Your task to perform on an android device: change the clock display to digital Image 0: 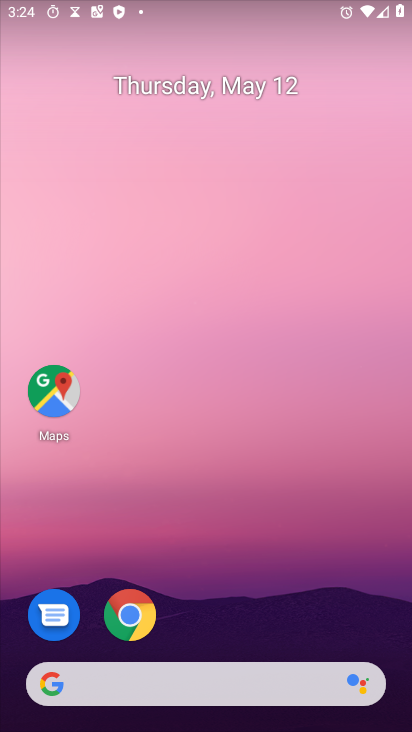
Step 0: press home button
Your task to perform on an android device: change the clock display to digital Image 1: 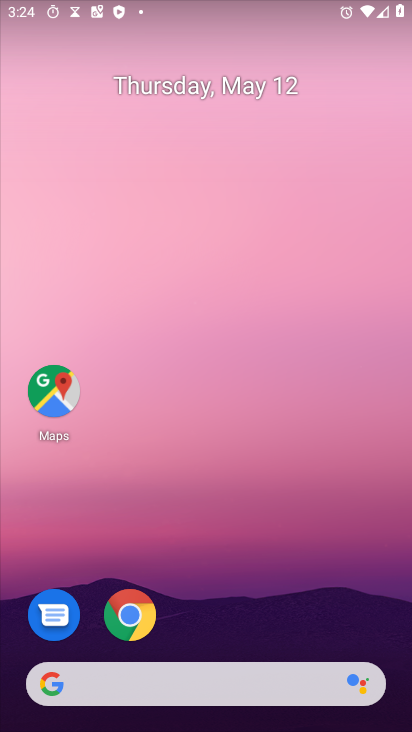
Step 1: drag from (58, 499) to (296, 45)
Your task to perform on an android device: change the clock display to digital Image 2: 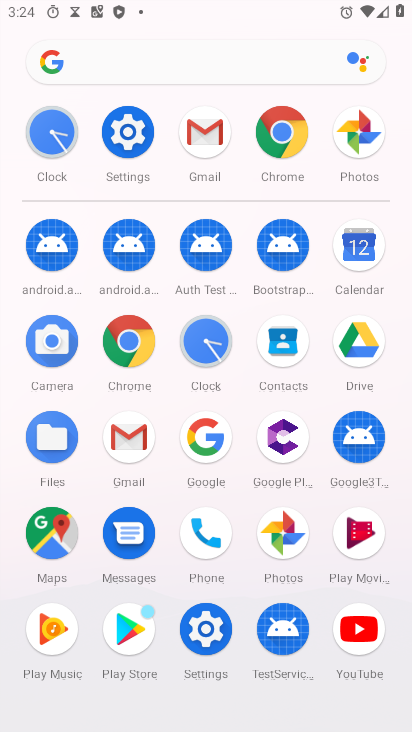
Step 2: click (216, 344)
Your task to perform on an android device: change the clock display to digital Image 3: 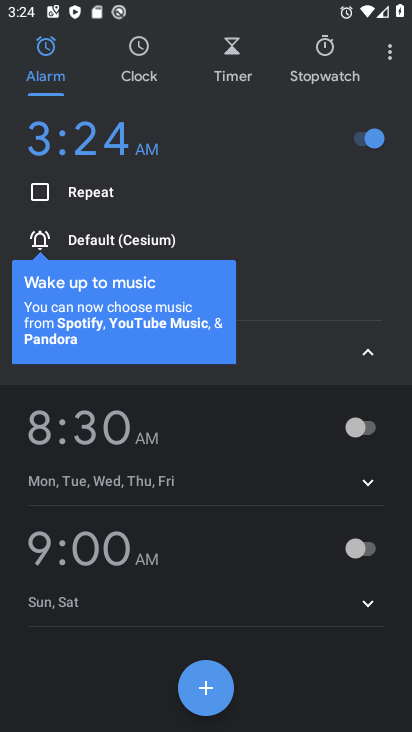
Step 3: click (386, 54)
Your task to perform on an android device: change the clock display to digital Image 4: 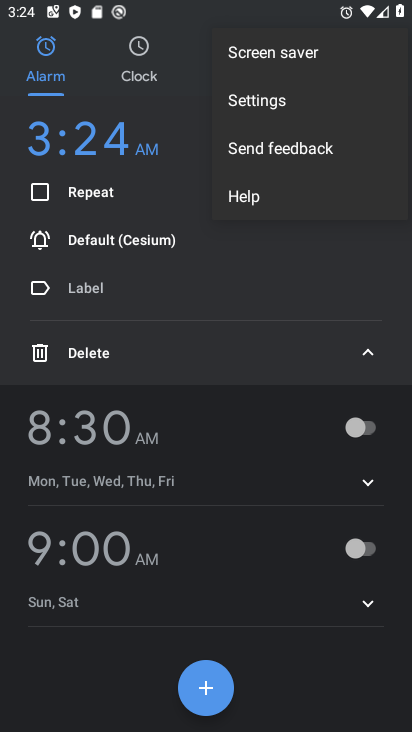
Step 4: click (265, 100)
Your task to perform on an android device: change the clock display to digital Image 5: 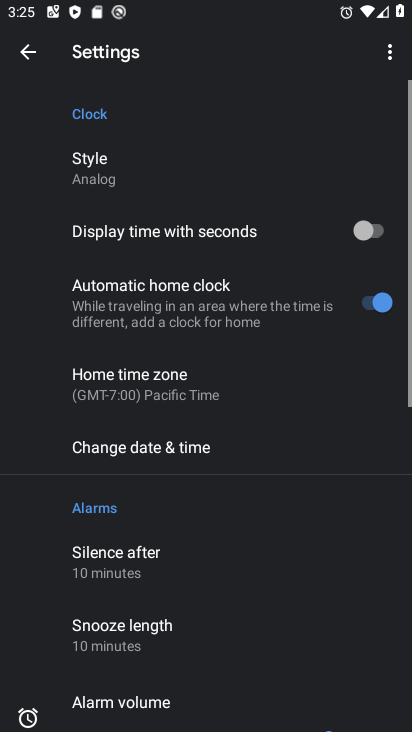
Step 5: click (110, 147)
Your task to perform on an android device: change the clock display to digital Image 6: 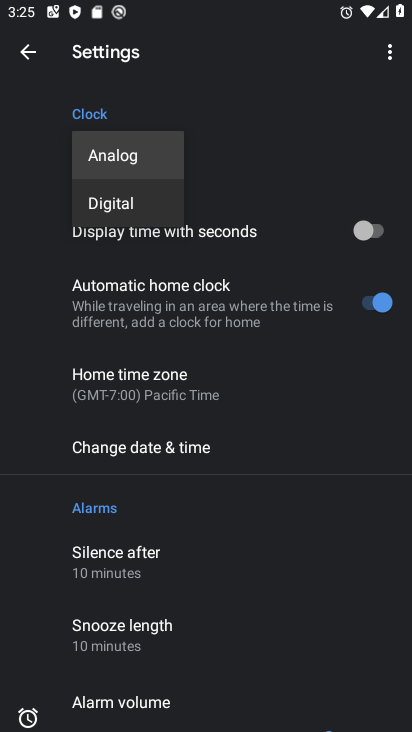
Step 6: click (120, 205)
Your task to perform on an android device: change the clock display to digital Image 7: 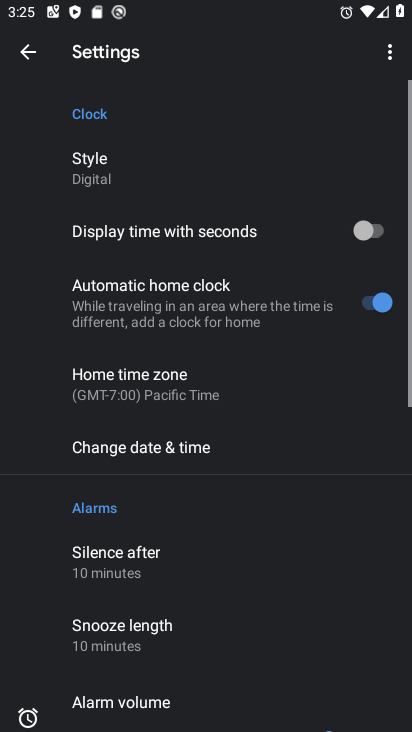
Step 7: task complete